Your task to perform on an android device: turn on the 24-hour format for clock Image 0: 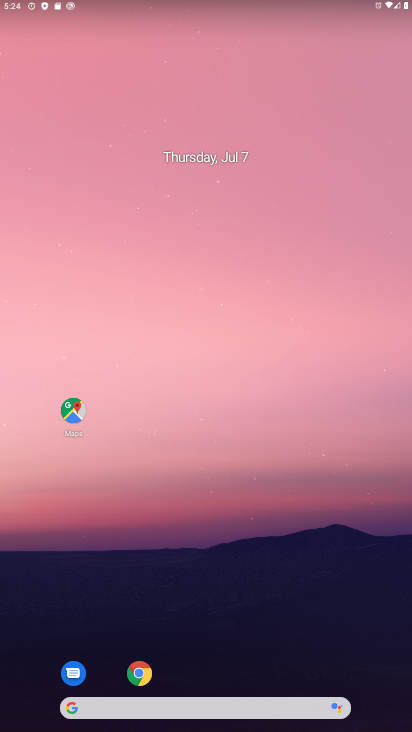
Step 0: drag from (173, 704) to (233, 6)
Your task to perform on an android device: turn on the 24-hour format for clock Image 1: 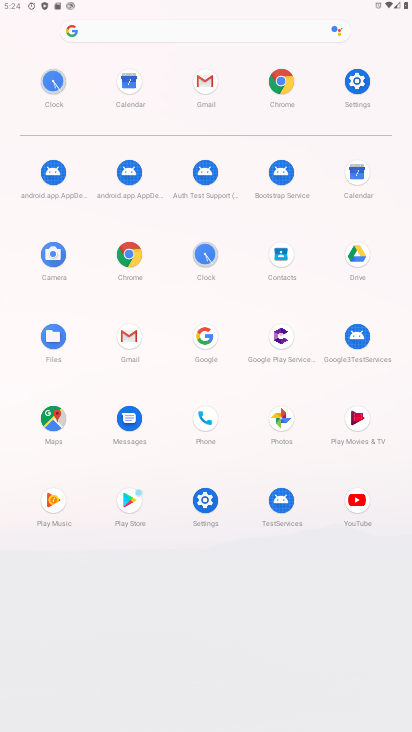
Step 1: click (204, 254)
Your task to perform on an android device: turn on the 24-hour format for clock Image 2: 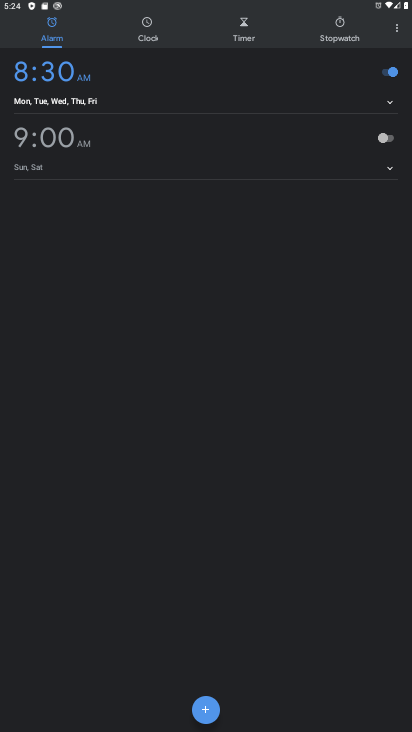
Step 2: click (391, 28)
Your task to perform on an android device: turn on the 24-hour format for clock Image 3: 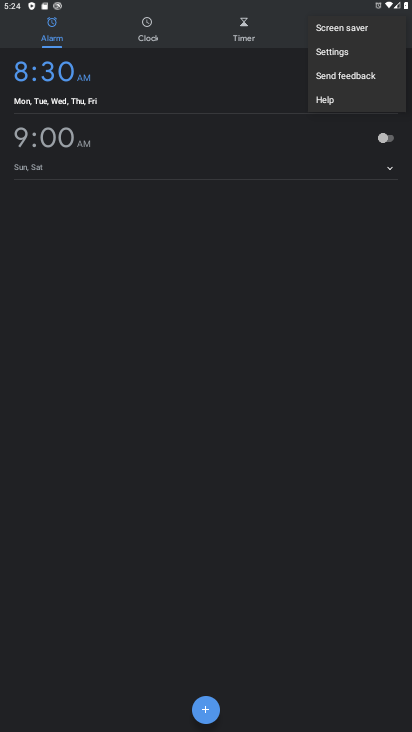
Step 3: click (336, 56)
Your task to perform on an android device: turn on the 24-hour format for clock Image 4: 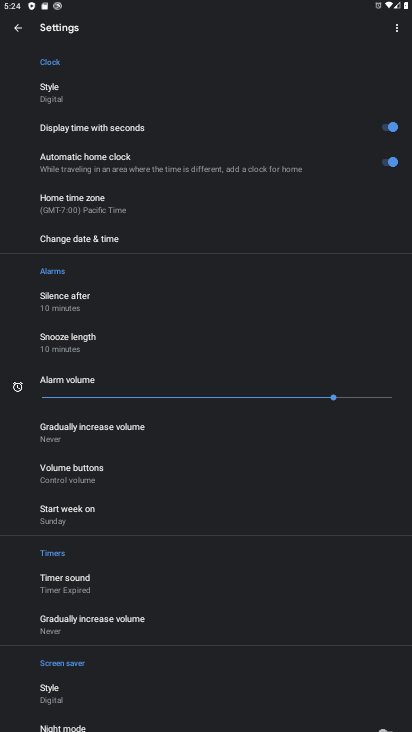
Step 4: click (106, 239)
Your task to perform on an android device: turn on the 24-hour format for clock Image 5: 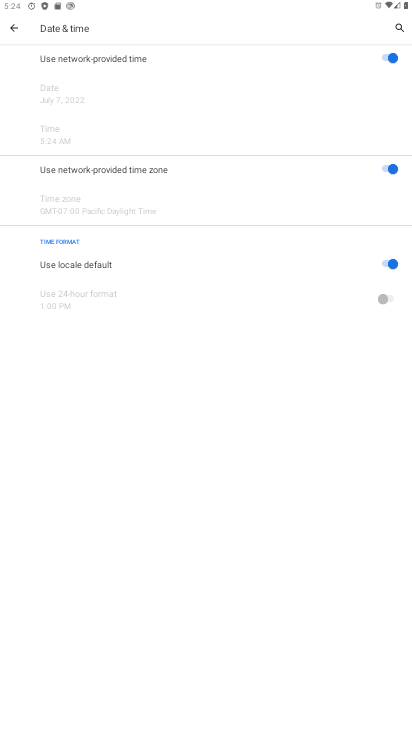
Step 5: click (384, 261)
Your task to perform on an android device: turn on the 24-hour format for clock Image 6: 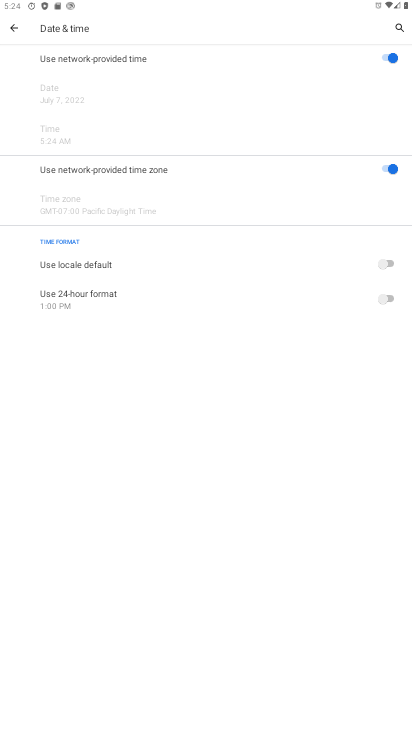
Step 6: click (391, 298)
Your task to perform on an android device: turn on the 24-hour format for clock Image 7: 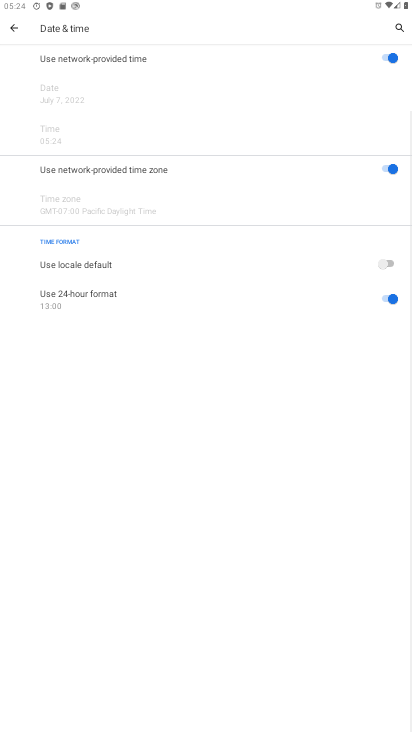
Step 7: task complete